Your task to perform on an android device: open app "Fetch Rewards" (install if not already installed) and enter user name: "Westwood@yahoo.com" and password: "qualifying" Image 0: 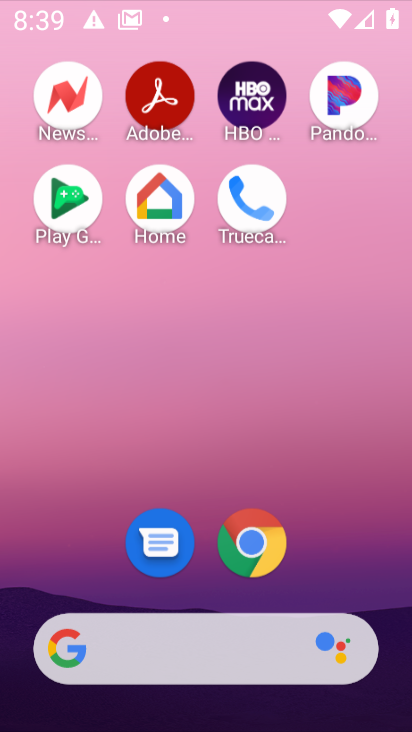
Step 0: press home button
Your task to perform on an android device: open app "Fetch Rewards" (install if not already installed) and enter user name: "Westwood@yahoo.com" and password: "qualifying" Image 1: 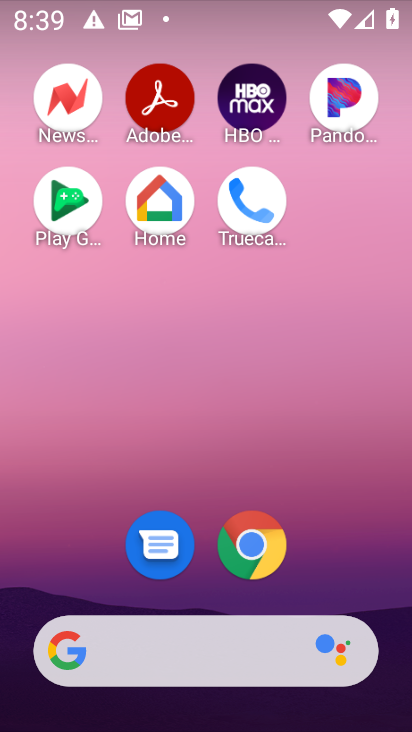
Step 1: drag from (347, 582) to (348, 82)
Your task to perform on an android device: open app "Fetch Rewards" (install if not already installed) and enter user name: "Westwood@yahoo.com" and password: "qualifying" Image 2: 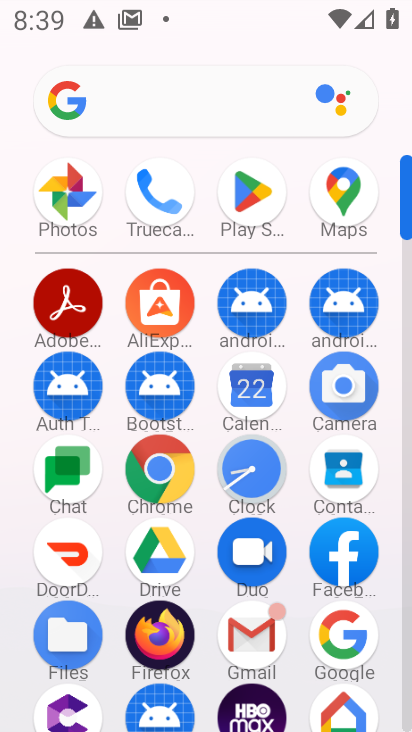
Step 2: click (260, 191)
Your task to perform on an android device: open app "Fetch Rewards" (install if not already installed) and enter user name: "Westwood@yahoo.com" and password: "qualifying" Image 3: 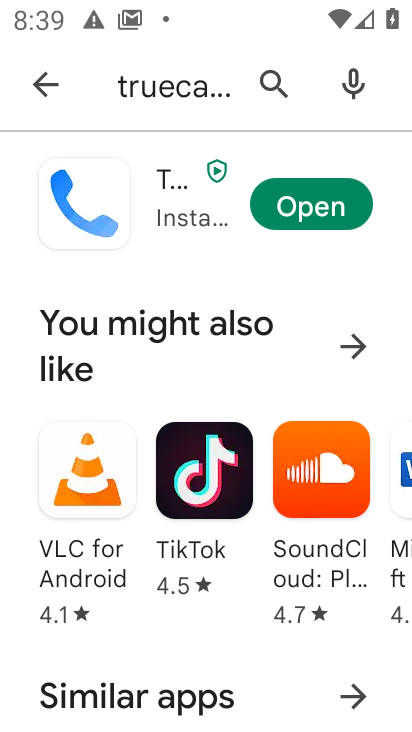
Step 3: press back button
Your task to perform on an android device: open app "Fetch Rewards" (install if not already installed) and enter user name: "Westwood@yahoo.com" and password: "qualifying" Image 4: 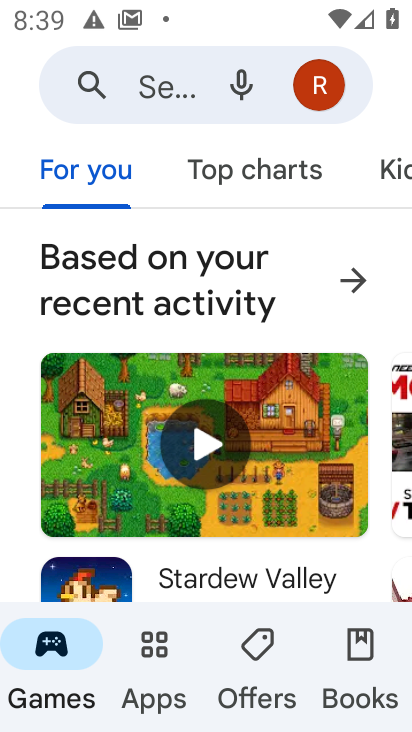
Step 4: click (174, 88)
Your task to perform on an android device: open app "Fetch Rewards" (install if not already installed) and enter user name: "Westwood@yahoo.com" and password: "qualifying" Image 5: 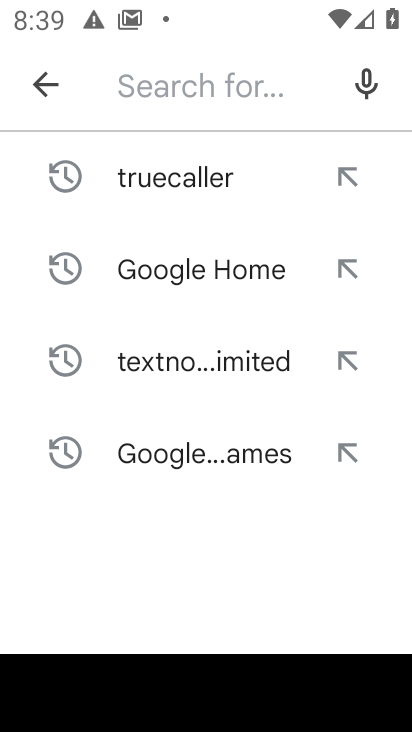
Step 5: type "Fetch Rewards"
Your task to perform on an android device: open app "Fetch Rewards" (install if not already installed) and enter user name: "Westwood@yahoo.com" and password: "qualifying" Image 6: 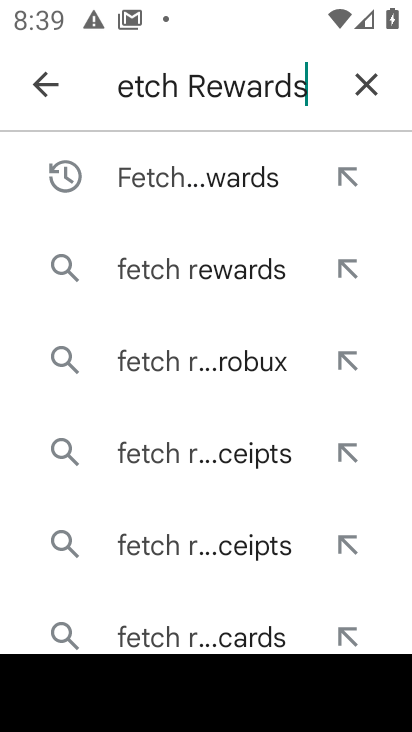
Step 6: press enter
Your task to perform on an android device: open app "Fetch Rewards" (install if not already installed) and enter user name: "Westwood@yahoo.com" and password: "qualifying" Image 7: 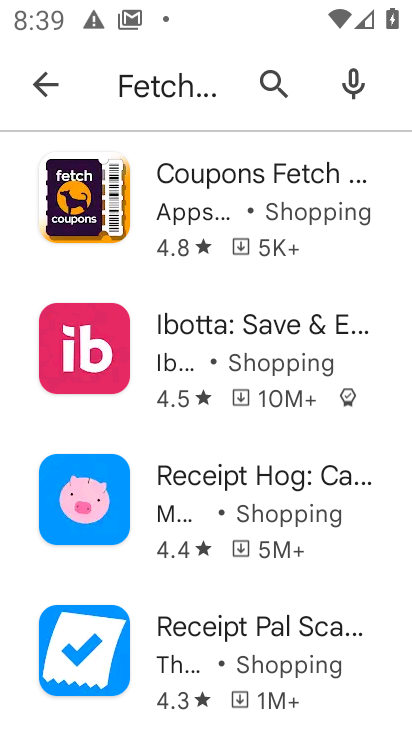
Step 7: task complete